Your task to perform on an android device: Set the phone to "Do not disturb". Image 0: 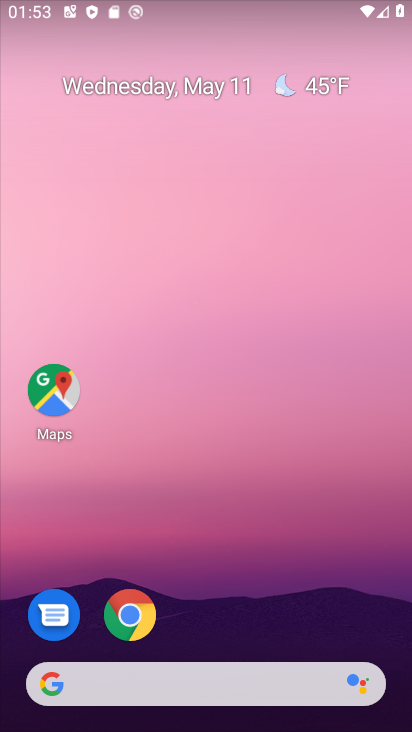
Step 0: drag from (382, 609) to (385, 133)
Your task to perform on an android device: Set the phone to "Do not disturb". Image 1: 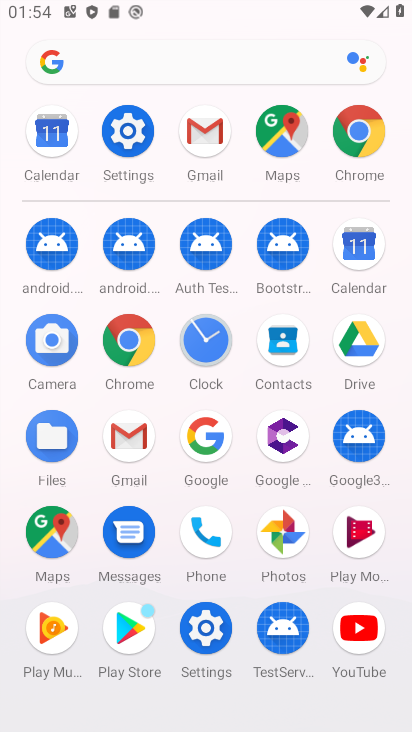
Step 1: click (131, 140)
Your task to perform on an android device: Set the phone to "Do not disturb". Image 2: 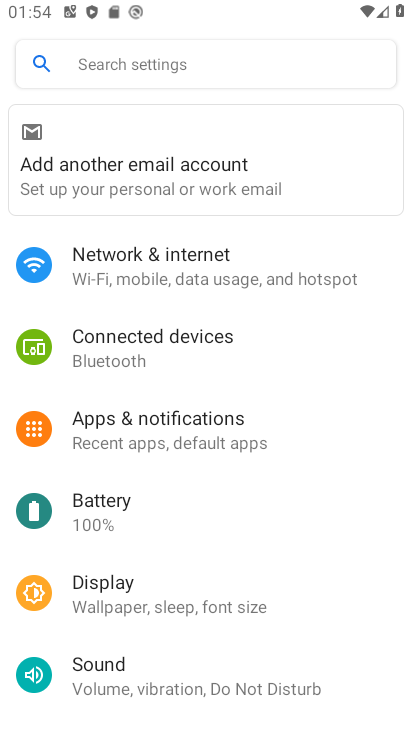
Step 2: click (125, 679)
Your task to perform on an android device: Set the phone to "Do not disturb". Image 3: 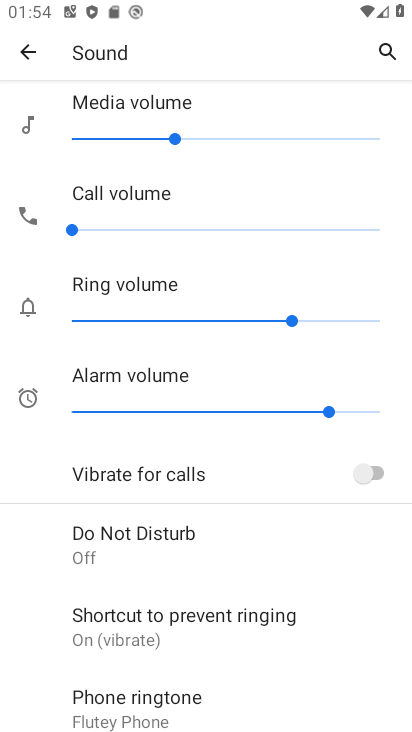
Step 3: task complete